Your task to perform on an android device: Clear all items from cart on bestbuy.com. Image 0: 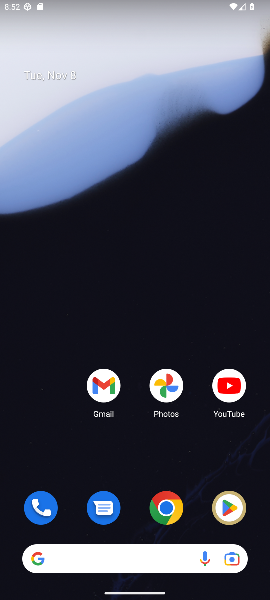
Step 0: press home button
Your task to perform on an android device: Clear all items from cart on bestbuy.com. Image 1: 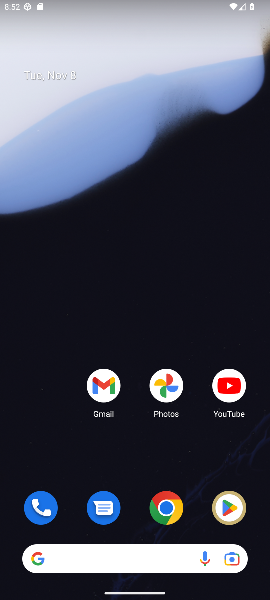
Step 1: click (169, 519)
Your task to perform on an android device: Clear all items from cart on bestbuy.com. Image 2: 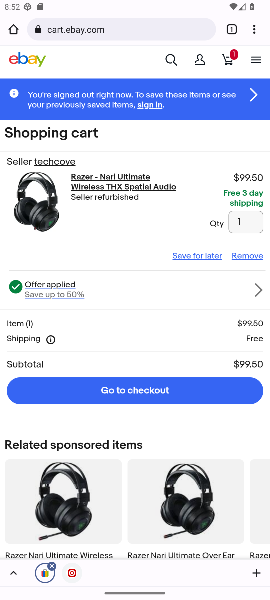
Step 2: click (85, 23)
Your task to perform on an android device: Clear all items from cart on bestbuy.com. Image 3: 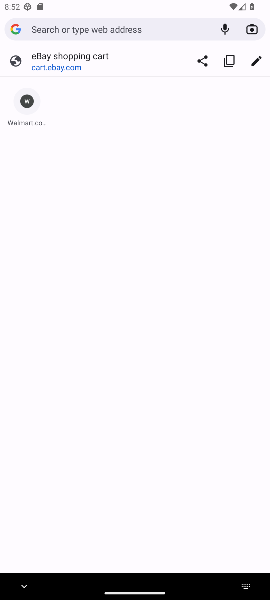
Step 3: type "bestbuy"
Your task to perform on an android device: Clear all items from cart on bestbuy.com. Image 4: 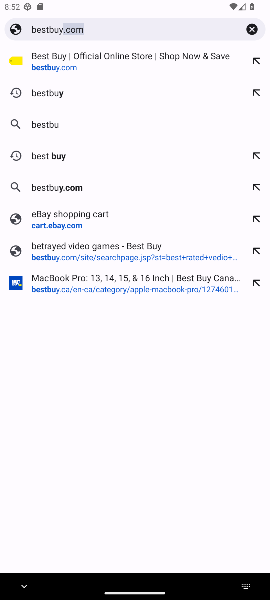
Step 4: type ""
Your task to perform on an android device: Clear all items from cart on bestbuy.com. Image 5: 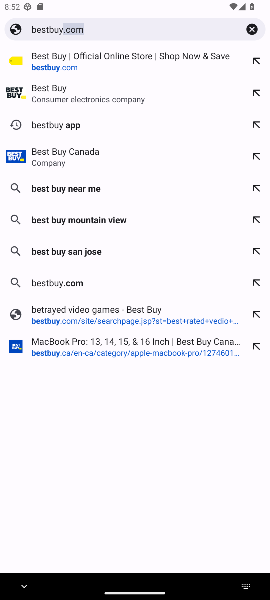
Step 5: click (67, 90)
Your task to perform on an android device: Clear all items from cart on bestbuy.com. Image 6: 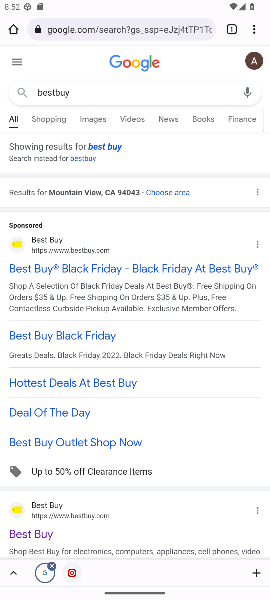
Step 6: drag from (183, 484) to (142, 244)
Your task to perform on an android device: Clear all items from cart on bestbuy.com. Image 7: 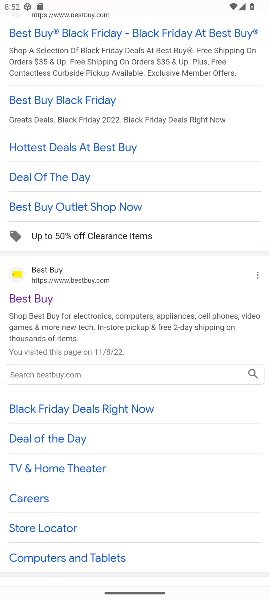
Step 7: click (19, 299)
Your task to perform on an android device: Clear all items from cart on bestbuy.com. Image 8: 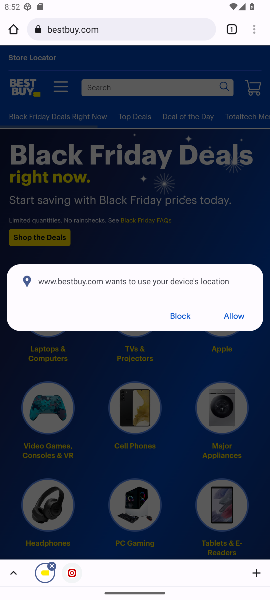
Step 8: click (244, 317)
Your task to perform on an android device: Clear all items from cart on bestbuy.com. Image 9: 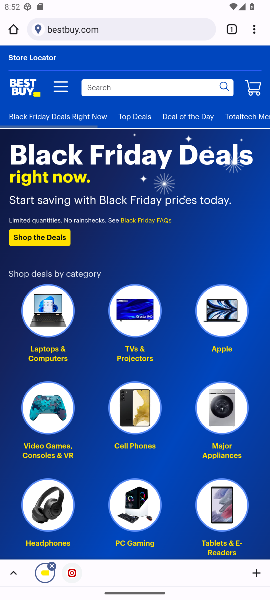
Step 9: click (111, 87)
Your task to perform on an android device: Clear all items from cart on bestbuy.com. Image 10: 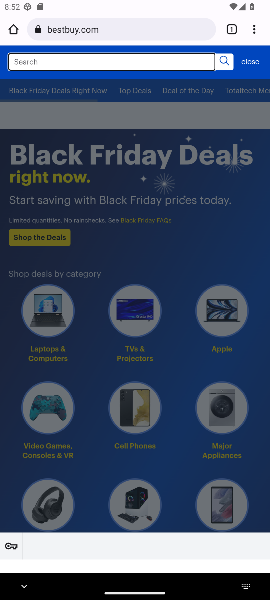
Step 10: press back button
Your task to perform on an android device: Clear all items from cart on bestbuy.com. Image 11: 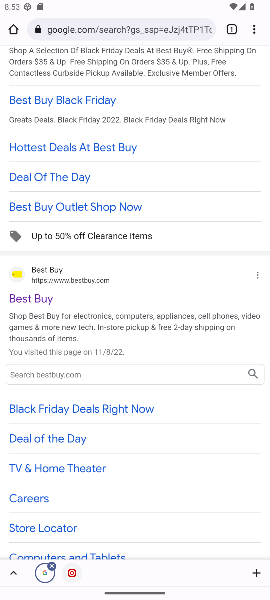
Step 11: click (24, 298)
Your task to perform on an android device: Clear all items from cart on bestbuy.com. Image 12: 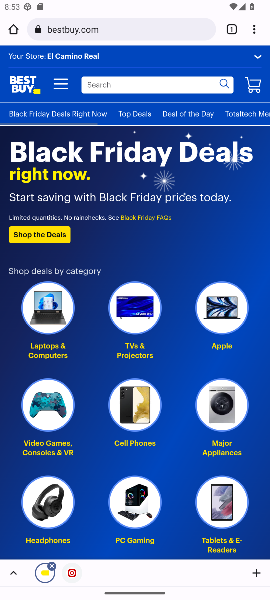
Step 12: click (94, 78)
Your task to perform on an android device: Clear all items from cart on bestbuy.com. Image 13: 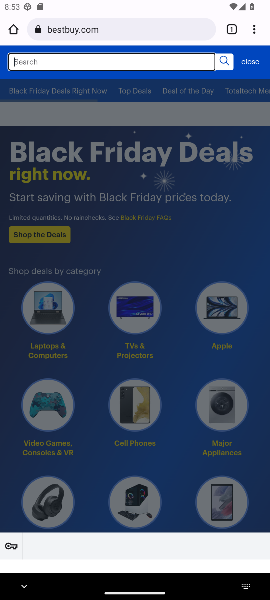
Step 13: press back button
Your task to perform on an android device: Clear all items from cart on bestbuy.com. Image 14: 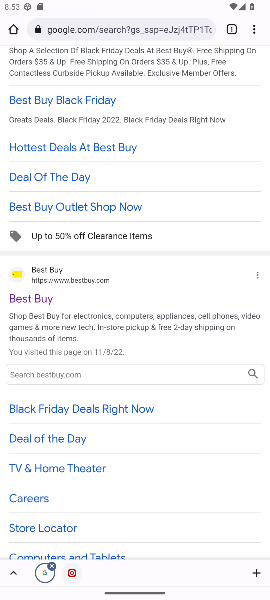
Step 14: click (40, 295)
Your task to perform on an android device: Clear all items from cart on bestbuy.com. Image 15: 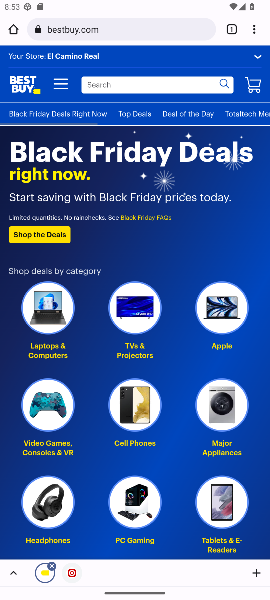
Step 15: click (254, 83)
Your task to perform on an android device: Clear all items from cart on bestbuy.com. Image 16: 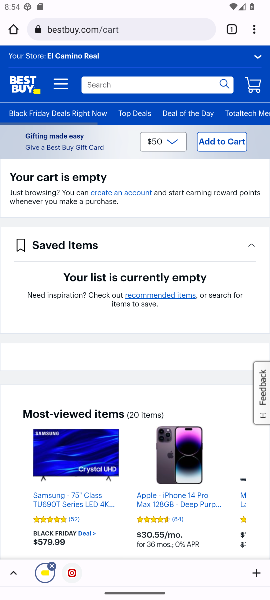
Step 16: drag from (181, 348) to (208, 151)
Your task to perform on an android device: Clear all items from cart on bestbuy.com. Image 17: 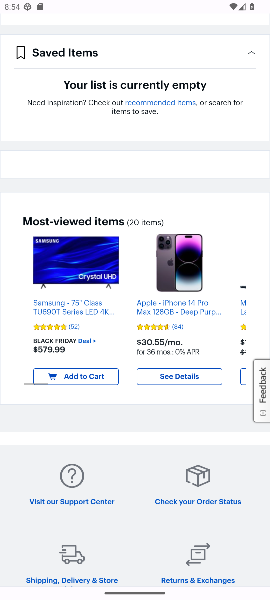
Step 17: click (60, 263)
Your task to perform on an android device: Clear all items from cart on bestbuy.com. Image 18: 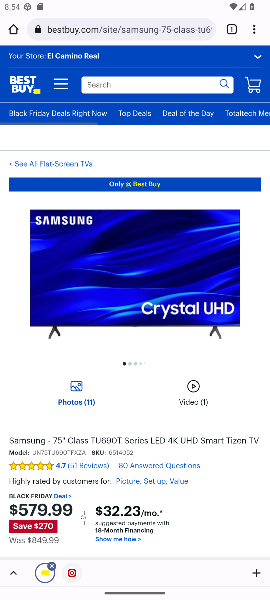
Step 18: drag from (106, 372) to (115, 258)
Your task to perform on an android device: Clear all items from cart on bestbuy.com. Image 19: 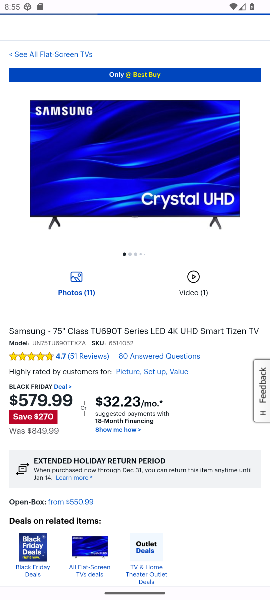
Step 19: drag from (152, 406) to (142, 101)
Your task to perform on an android device: Clear all items from cart on bestbuy.com. Image 20: 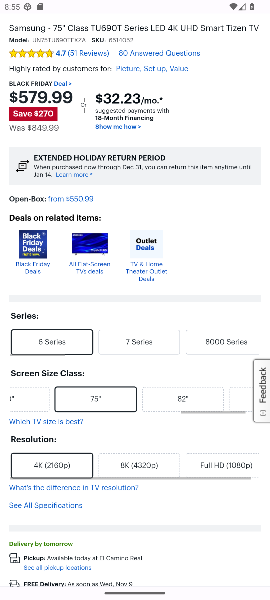
Step 20: drag from (128, 482) to (136, 146)
Your task to perform on an android device: Clear all items from cart on bestbuy.com. Image 21: 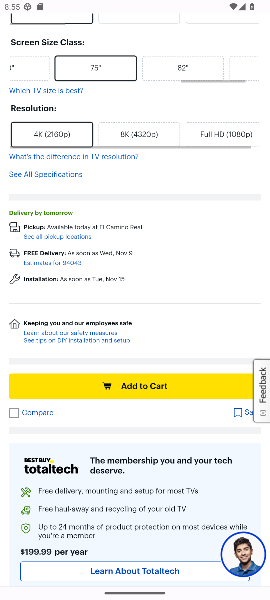
Step 21: drag from (145, 217) to (206, 549)
Your task to perform on an android device: Clear all items from cart on bestbuy.com. Image 22: 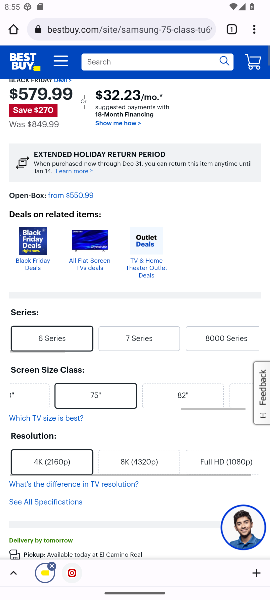
Step 22: click (251, 67)
Your task to perform on an android device: Clear all items from cart on bestbuy.com. Image 23: 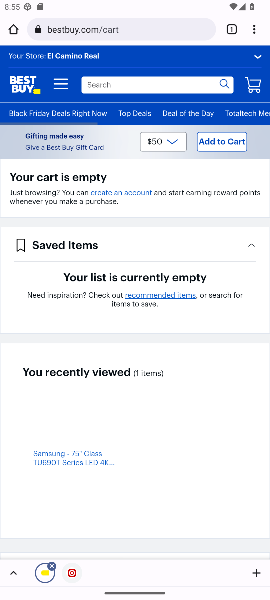
Step 23: task complete